Your task to perform on an android device: Empty the shopping cart on target.com. Image 0: 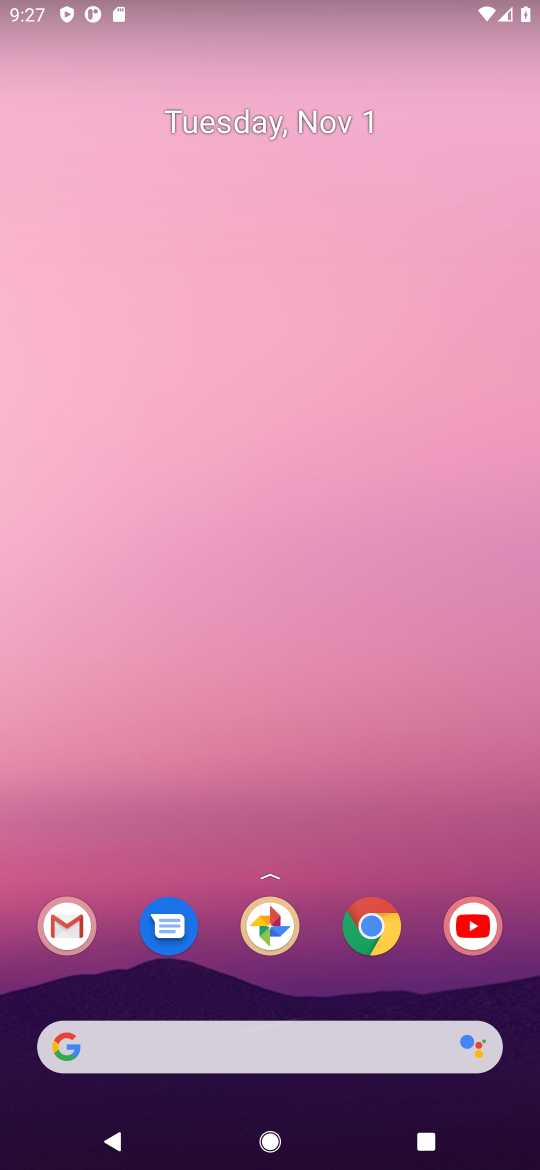
Step 0: click (355, 926)
Your task to perform on an android device: Empty the shopping cart on target.com. Image 1: 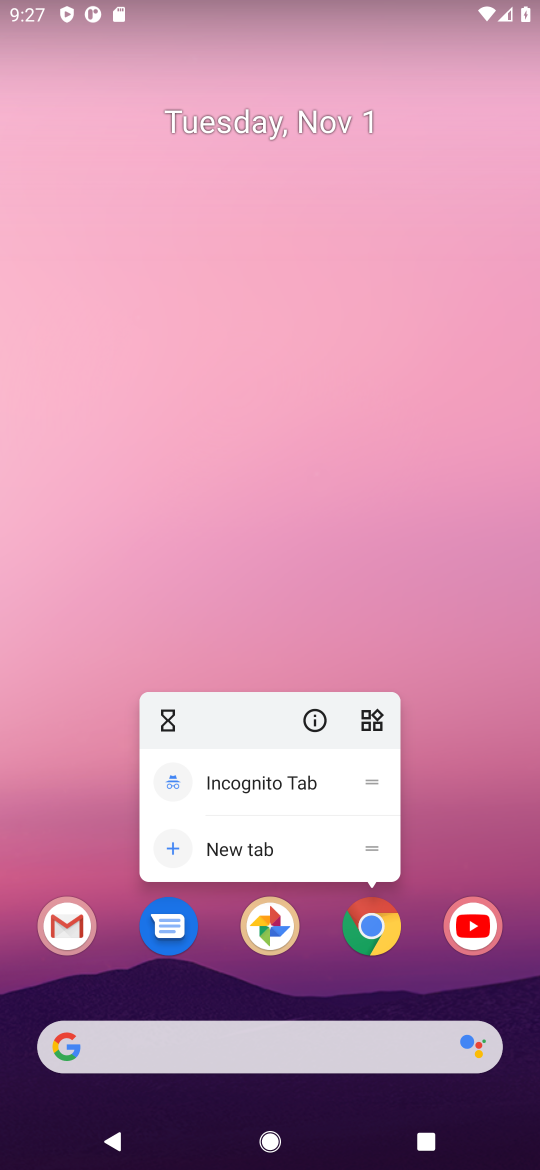
Step 1: click (363, 922)
Your task to perform on an android device: Empty the shopping cart on target.com. Image 2: 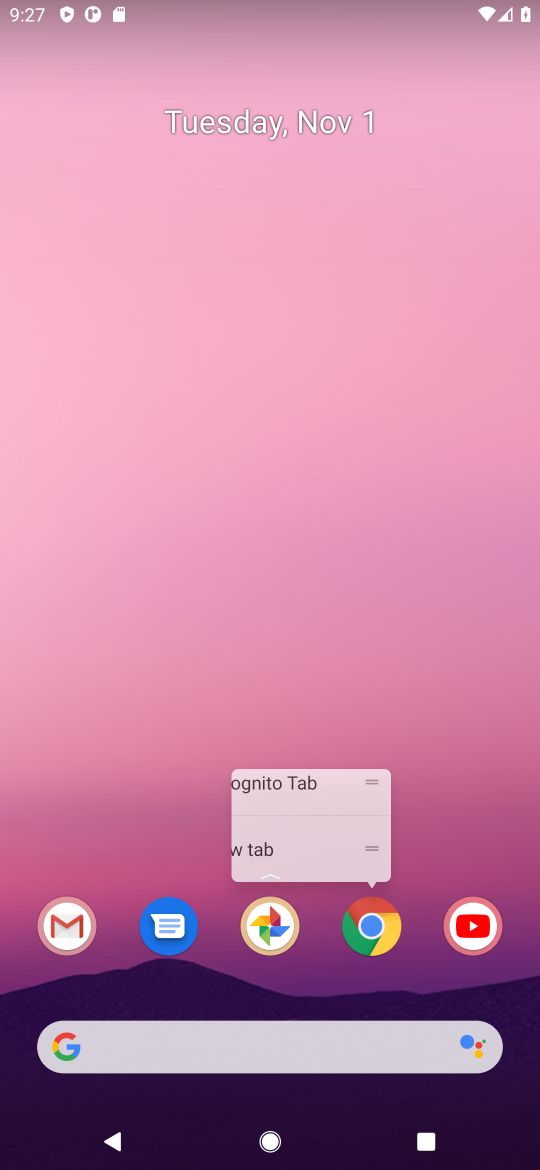
Step 2: click (363, 925)
Your task to perform on an android device: Empty the shopping cart on target.com. Image 3: 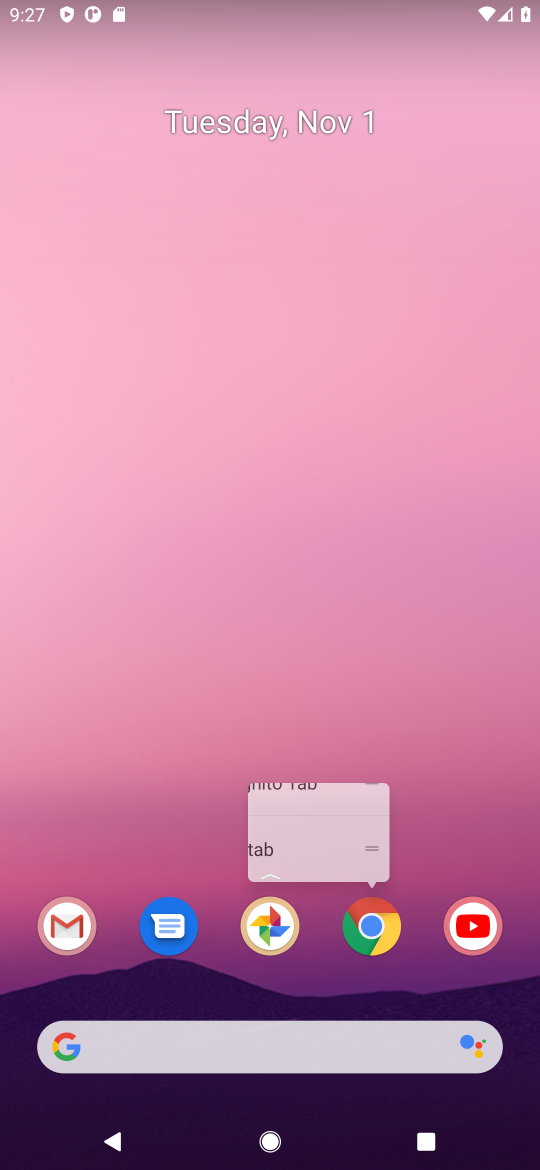
Step 3: click (365, 938)
Your task to perform on an android device: Empty the shopping cart on target.com. Image 4: 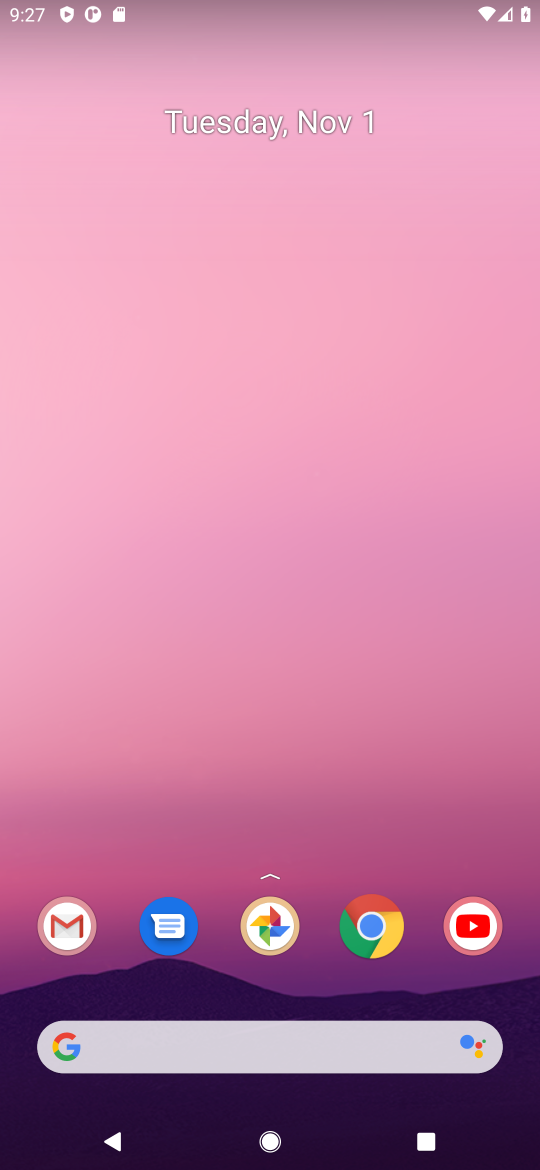
Step 4: click (367, 941)
Your task to perform on an android device: Empty the shopping cart on target.com. Image 5: 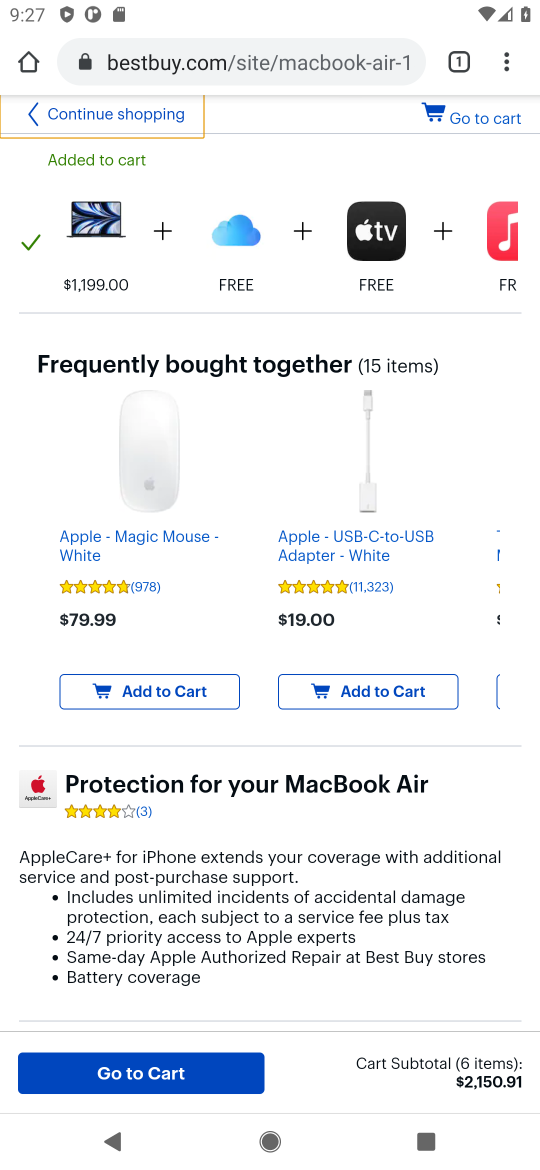
Step 5: click (126, 55)
Your task to perform on an android device: Empty the shopping cart on target.com. Image 6: 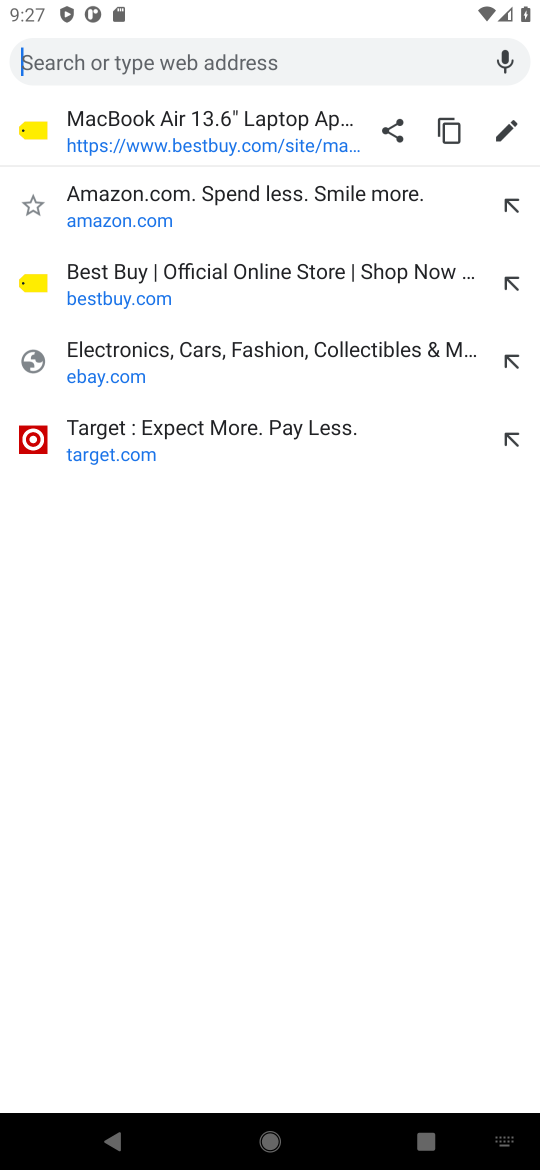
Step 6: click (108, 457)
Your task to perform on an android device: Empty the shopping cart on target.com. Image 7: 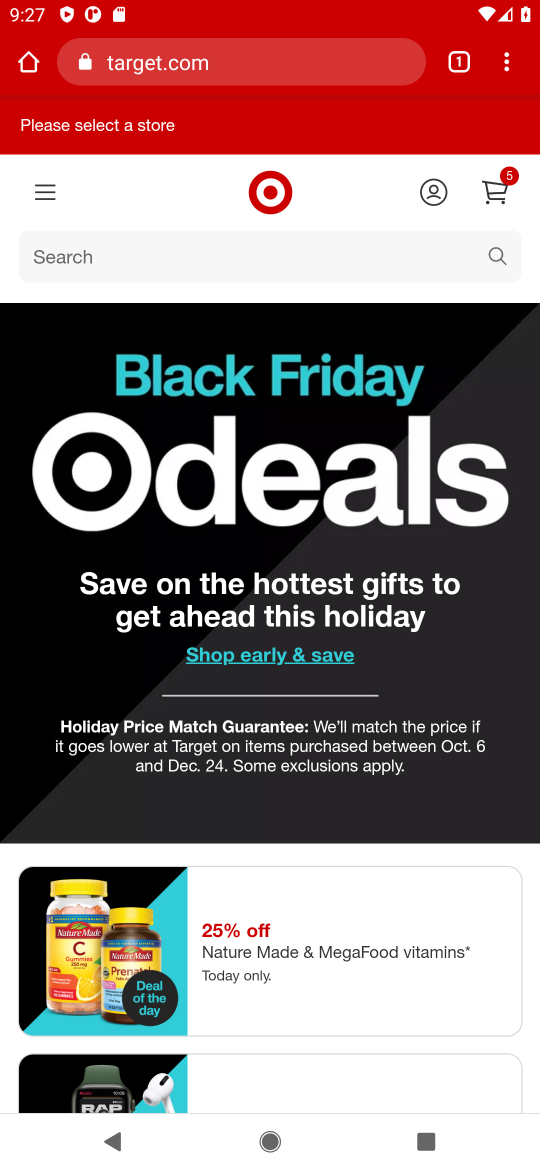
Step 7: click (490, 194)
Your task to perform on an android device: Empty the shopping cart on target.com. Image 8: 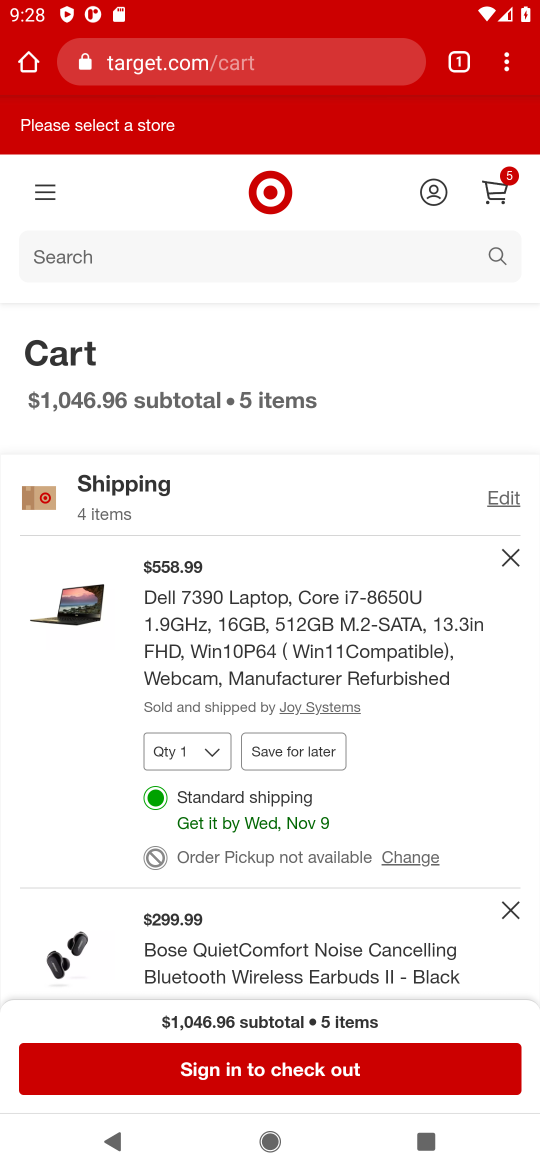
Step 8: drag from (179, 916) to (210, 821)
Your task to perform on an android device: Empty the shopping cart on target.com. Image 9: 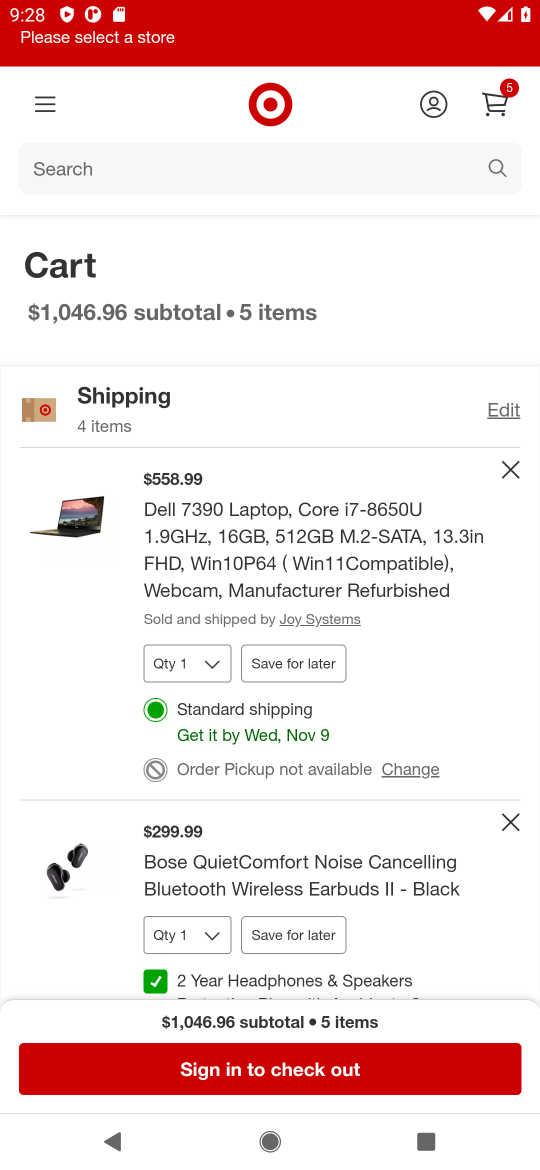
Step 9: drag from (178, 666) to (204, 444)
Your task to perform on an android device: Empty the shopping cart on target.com. Image 10: 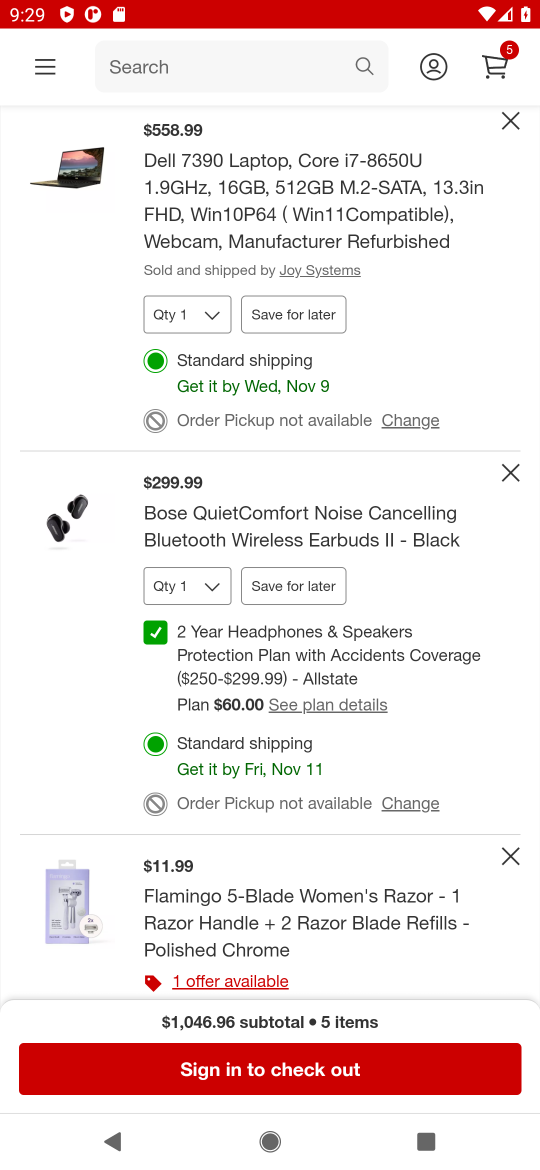
Step 10: click (504, 58)
Your task to perform on an android device: Empty the shopping cart on target.com. Image 11: 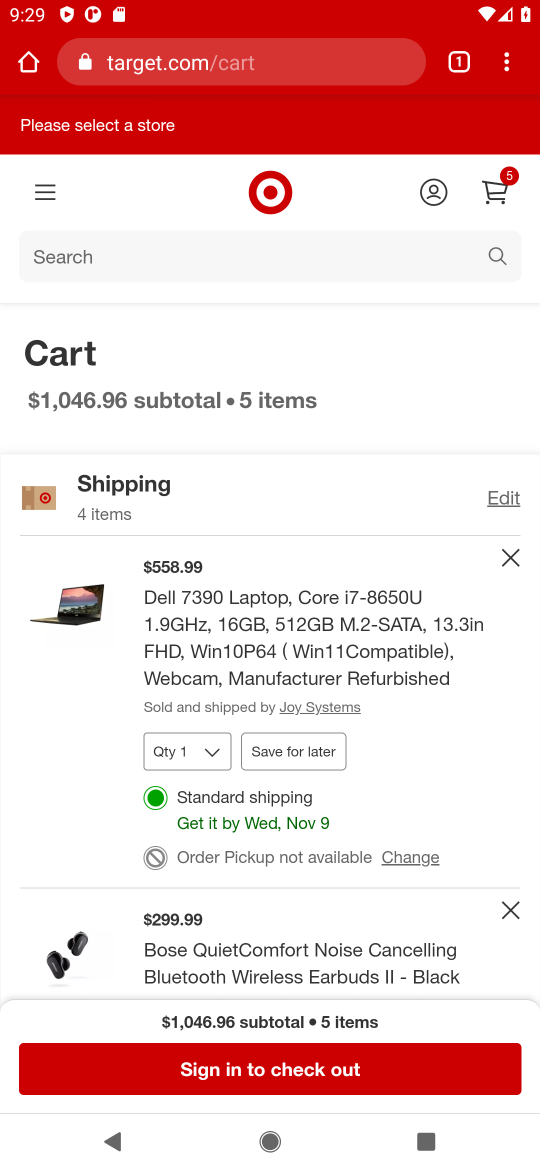
Step 11: drag from (177, 881) to (231, 469)
Your task to perform on an android device: Empty the shopping cart on target.com. Image 12: 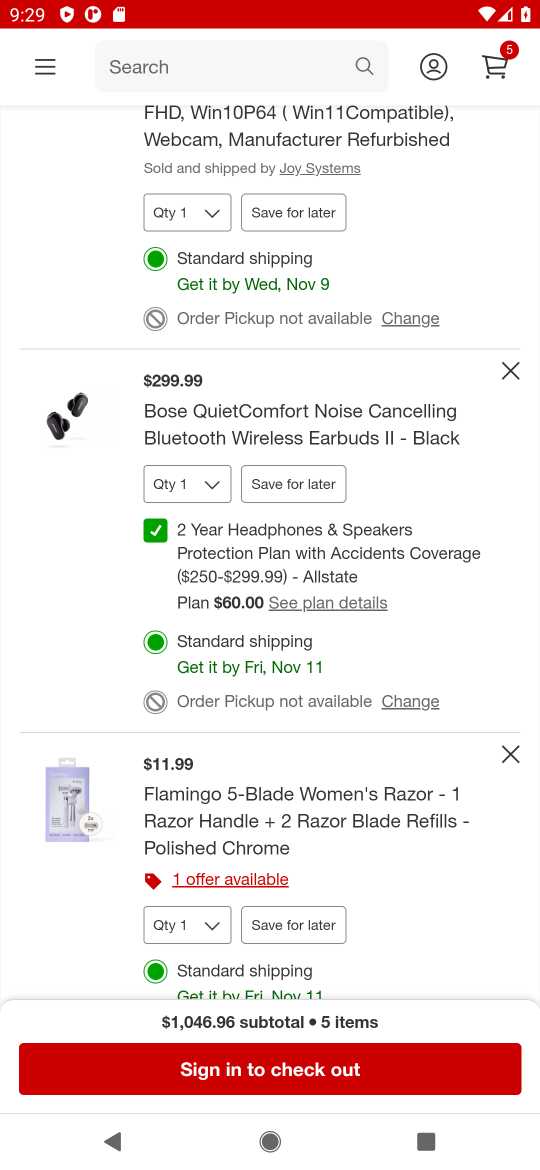
Step 12: click (508, 366)
Your task to perform on an android device: Empty the shopping cart on target.com. Image 13: 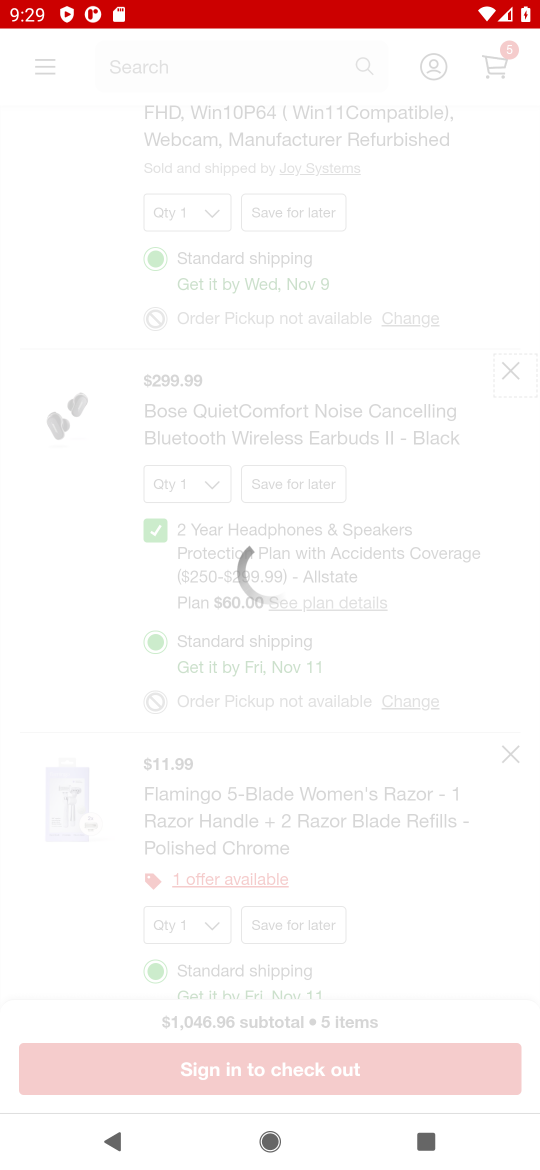
Step 13: click (508, 366)
Your task to perform on an android device: Empty the shopping cart on target.com. Image 14: 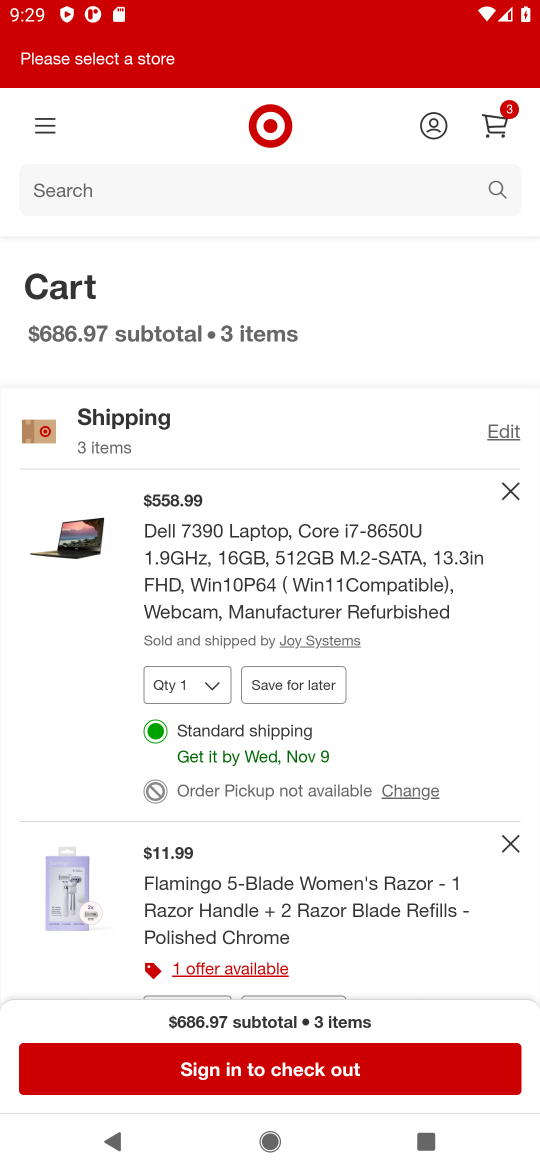
Step 14: click (511, 481)
Your task to perform on an android device: Empty the shopping cart on target.com. Image 15: 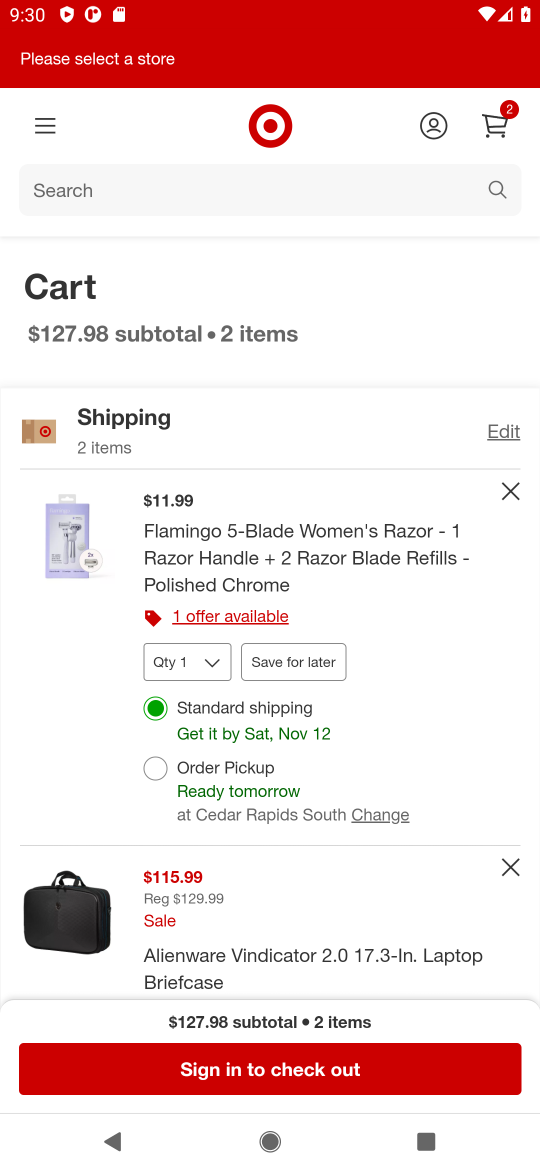
Step 15: click (516, 479)
Your task to perform on an android device: Empty the shopping cart on target.com. Image 16: 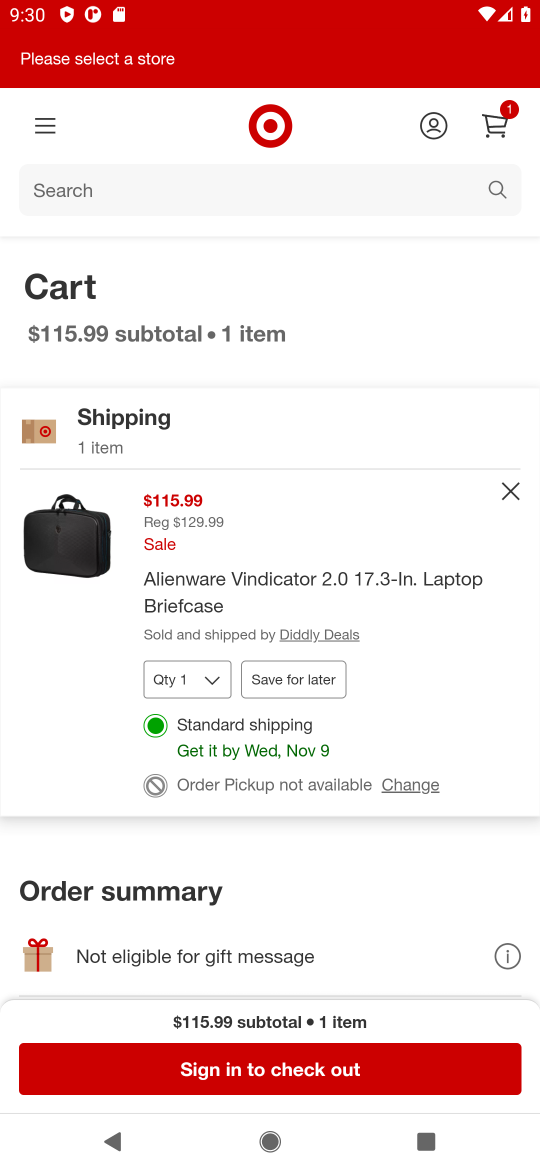
Step 16: click (515, 492)
Your task to perform on an android device: Empty the shopping cart on target.com. Image 17: 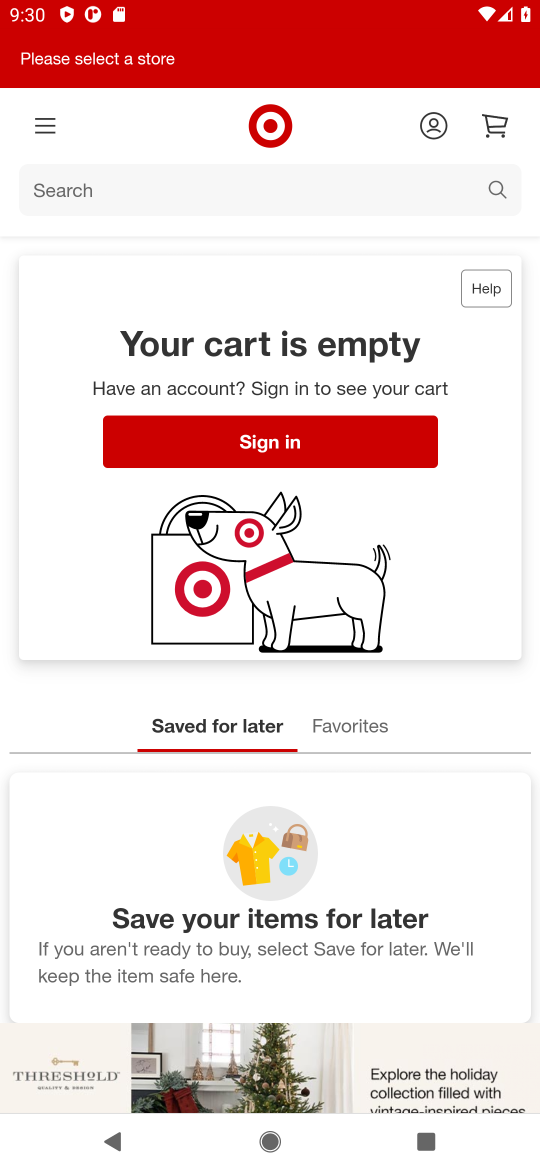
Step 17: task complete